Your task to perform on an android device: open the mobile data screen to see how much data has been used Image 0: 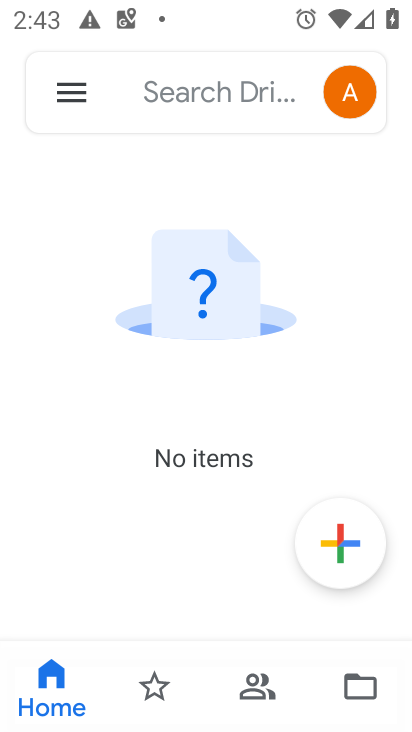
Step 0: press home button
Your task to perform on an android device: open the mobile data screen to see how much data has been used Image 1: 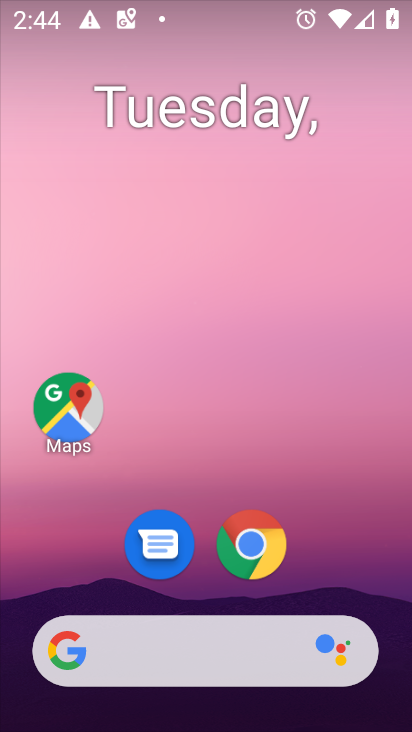
Step 1: drag from (338, 454) to (326, 29)
Your task to perform on an android device: open the mobile data screen to see how much data has been used Image 2: 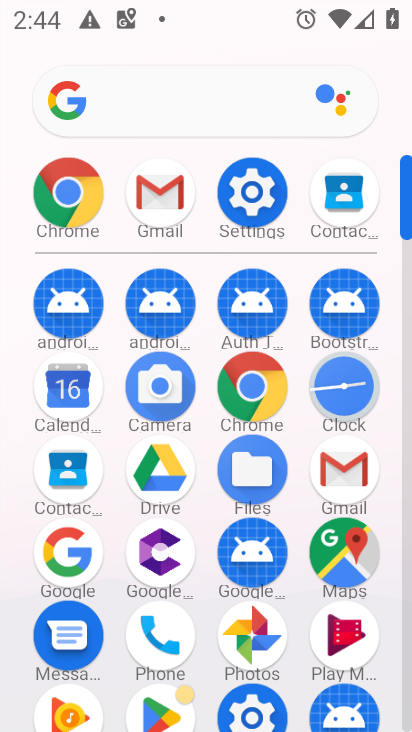
Step 2: click (255, 714)
Your task to perform on an android device: open the mobile data screen to see how much data has been used Image 3: 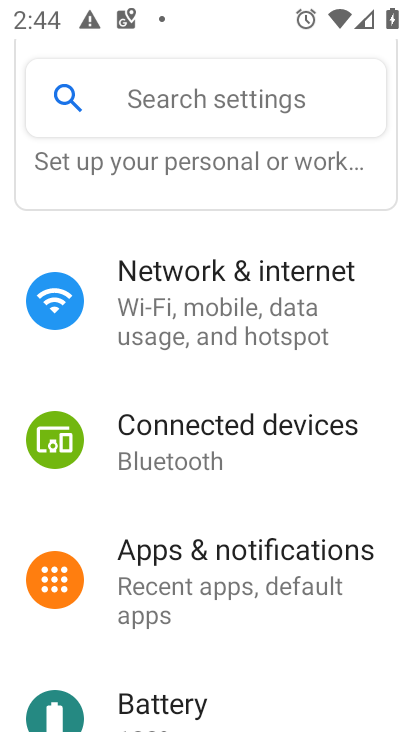
Step 3: drag from (285, 641) to (281, 266)
Your task to perform on an android device: open the mobile data screen to see how much data has been used Image 4: 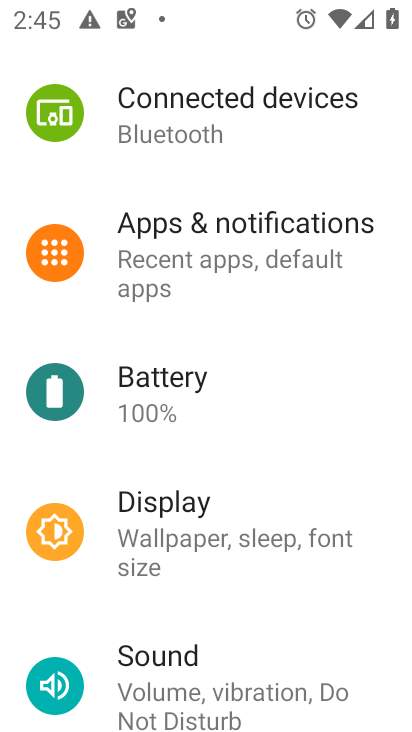
Step 4: drag from (250, 165) to (243, 693)
Your task to perform on an android device: open the mobile data screen to see how much data has been used Image 5: 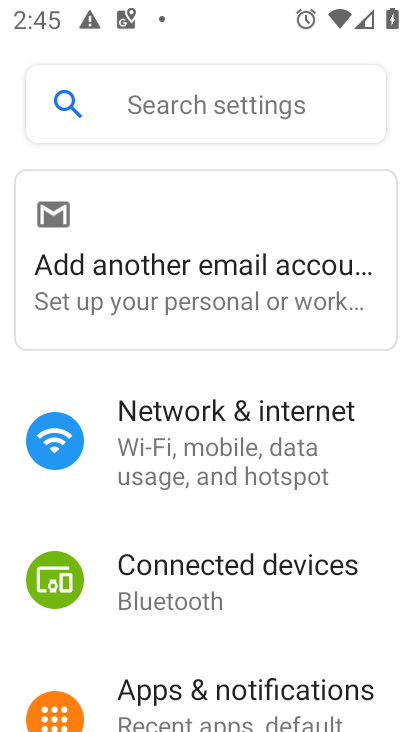
Step 5: click (239, 444)
Your task to perform on an android device: open the mobile data screen to see how much data has been used Image 6: 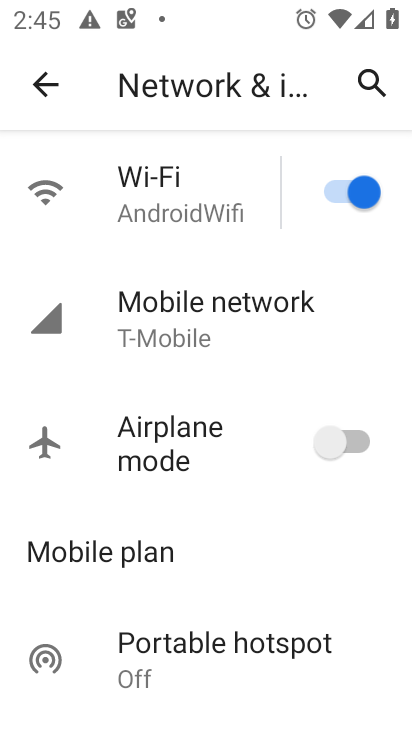
Step 6: click (210, 305)
Your task to perform on an android device: open the mobile data screen to see how much data has been used Image 7: 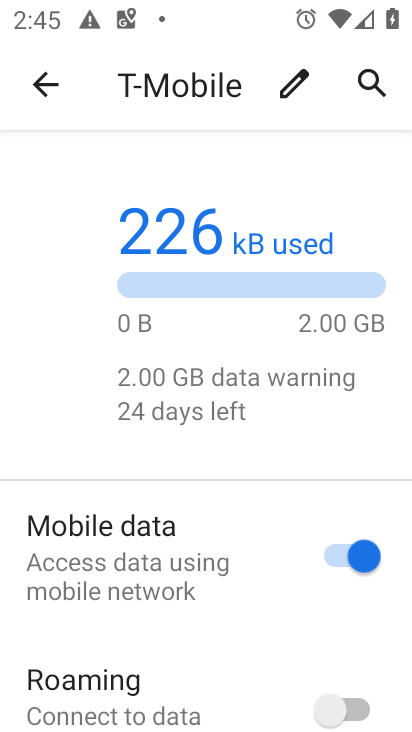
Step 7: task complete